Your task to perform on an android device: toggle wifi Image 0: 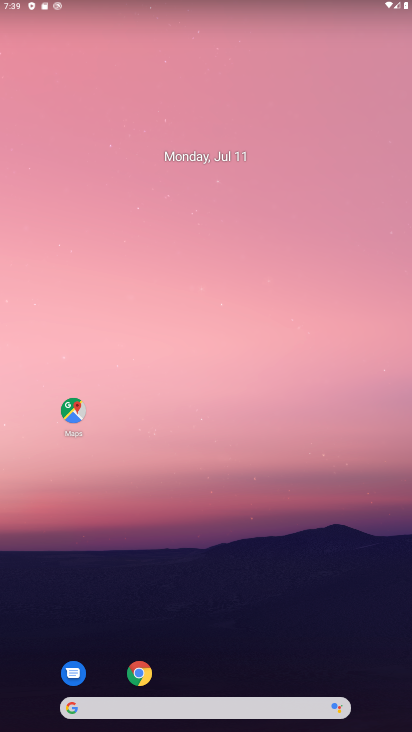
Step 0: drag from (184, 697) to (167, 391)
Your task to perform on an android device: toggle wifi Image 1: 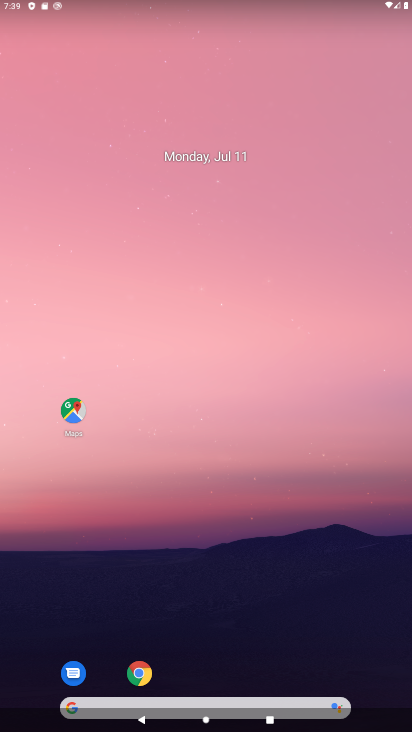
Step 1: drag from (286, 696) to (270, 256)
Your task to perform on an android device: toggle wifi Image 2: 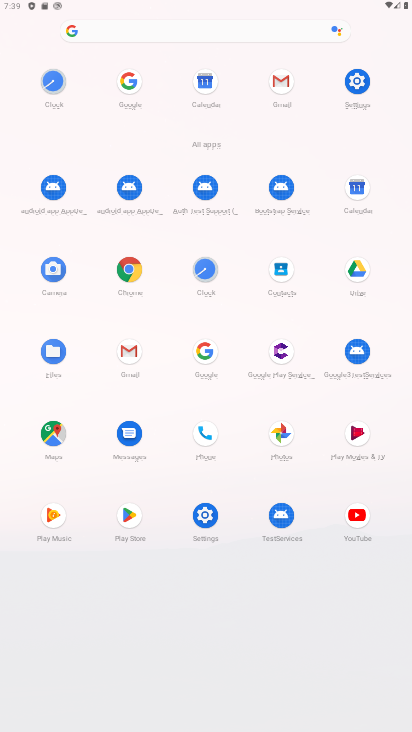
Step 2: click (355, 68)
Your task to perform on an android device: toggle wifi Image 3: 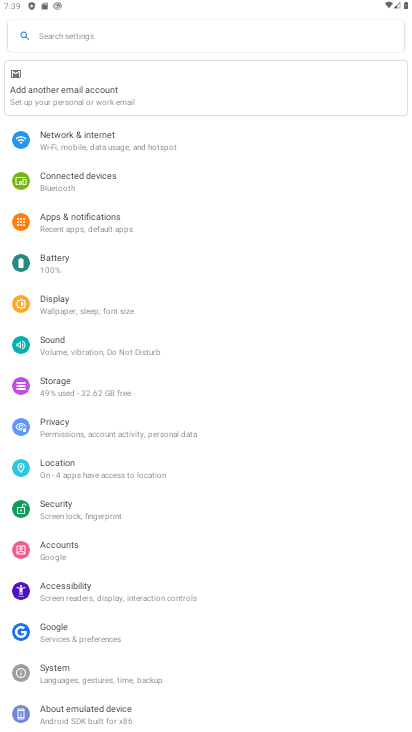
Step 3: click (100, 145)
Your task to perform on an android device: toggle wifi Image 4: 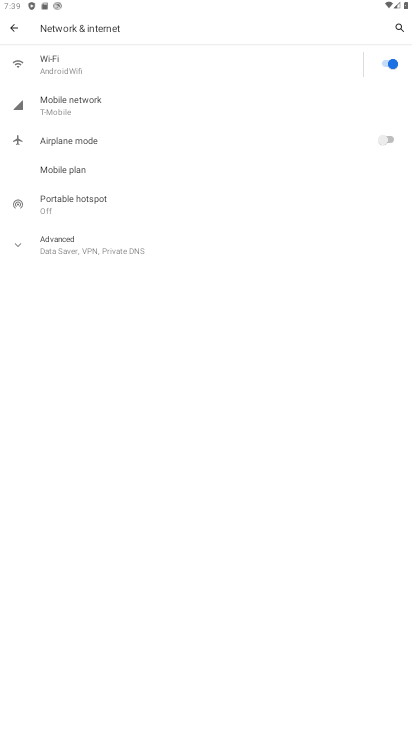
Step 4: click (385, 60)
Your task to perform on an android device: toggle wifi Image 5: 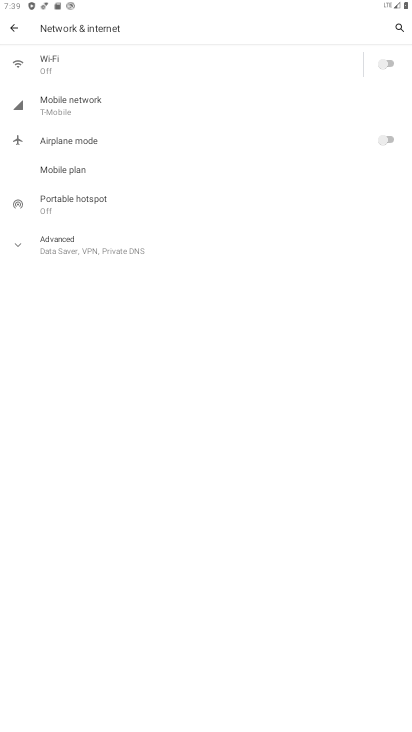
Step 5: task complete